Your task to perform on an android device: turn off notifications settings in the gmail app Image 0: 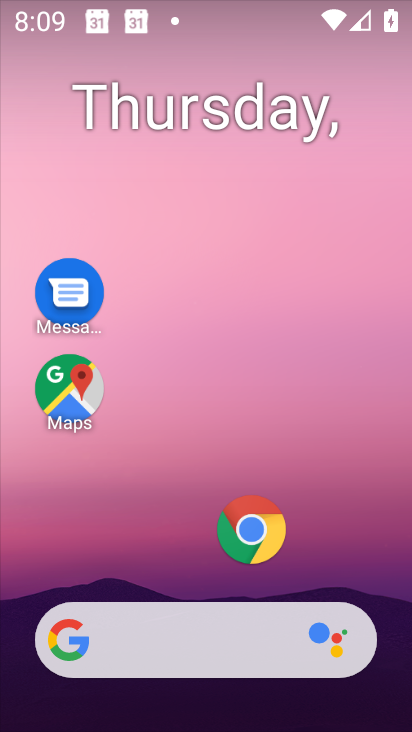
Step 0: drag from (153, 584) to (271, 61)
Your task to perform on an android device: turn off notifications settings in the gmail app Image 1: 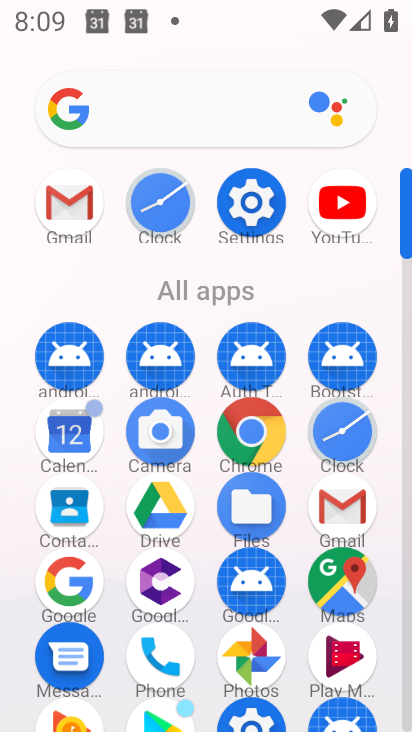
Step 1: click (78, 212)
Your task to perform on an android device: turn off notifications settings in the gmail app Image 2: 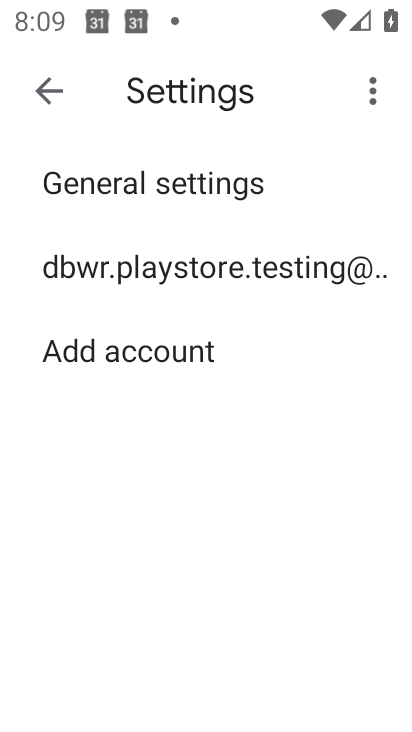
Step 2: click (243, 263)
Your task to perform on an android device: turn off notifications settings in the gmail app Image 3: 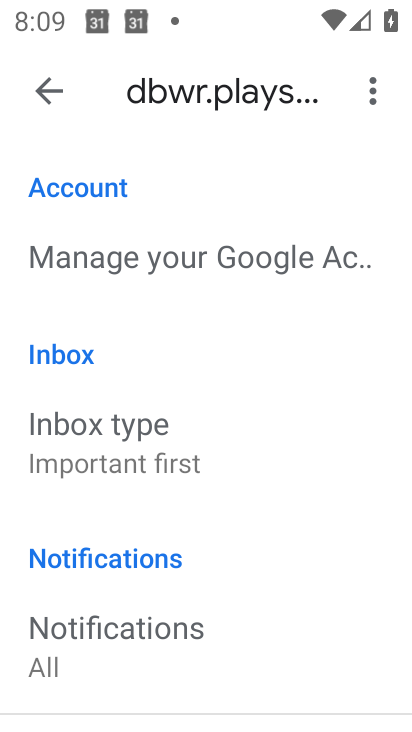
Step 3: drag from (190, 660) to (292, 335)
Your task to perform on an android device: turn off notifications settings in the gmail app Image 4: 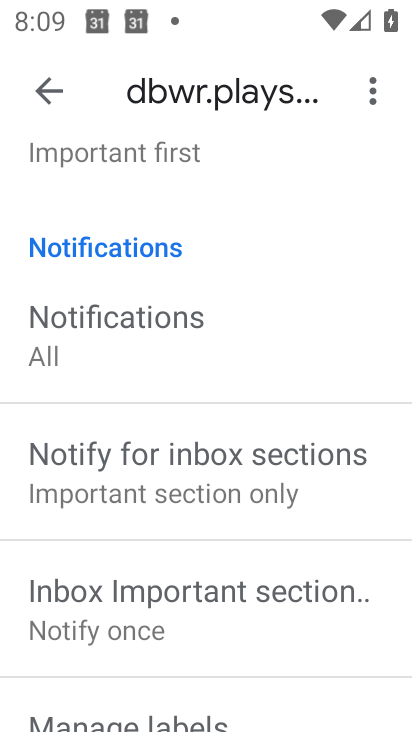
Step 4: click (128, 346)
Your task to perform on an android device: turn off notifications settings in the gmail app Image 5: 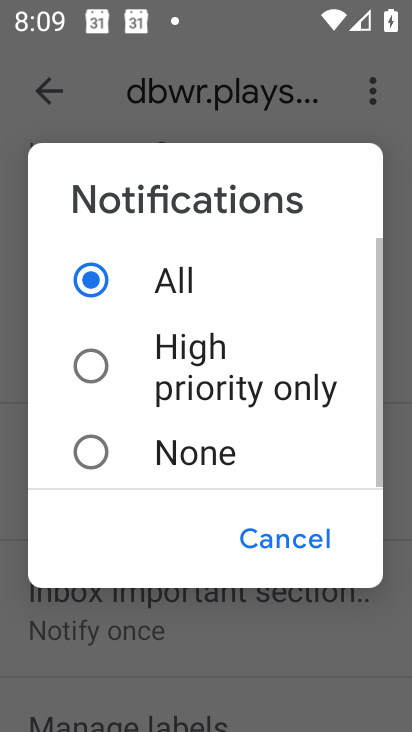
Step 5: click (98, 455)
Your task to perform on an android device: turn off notifications settings in the gmail app Image 6: 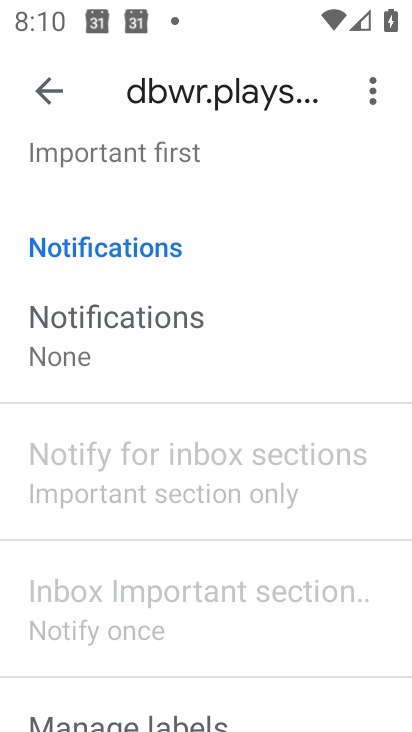
Step 6: task complete